Your task to perform on an android device: turn notification dots on Image 0: 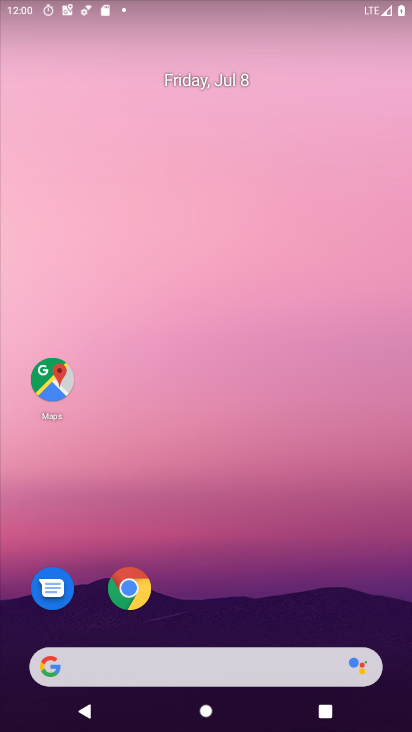
Step 0: drag from (169, 663) to (186, 108)
Your task to perform on an android device: turn notification dots on Image 1: 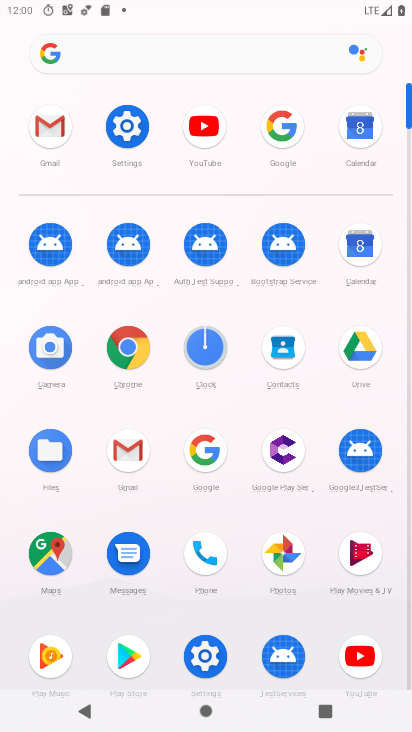
Step 1: click (124, 131)
Your task to perform on an android device: turn notification dots on Image 2: 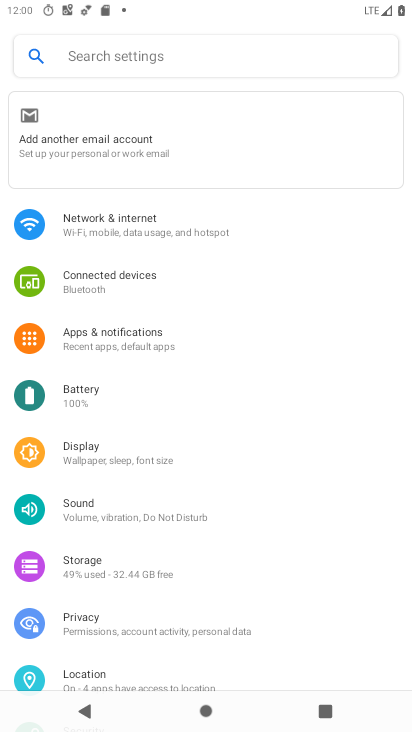
Step 2: click (130, 334)
Your task to perform on an android device: turn notification dots on Image 3: 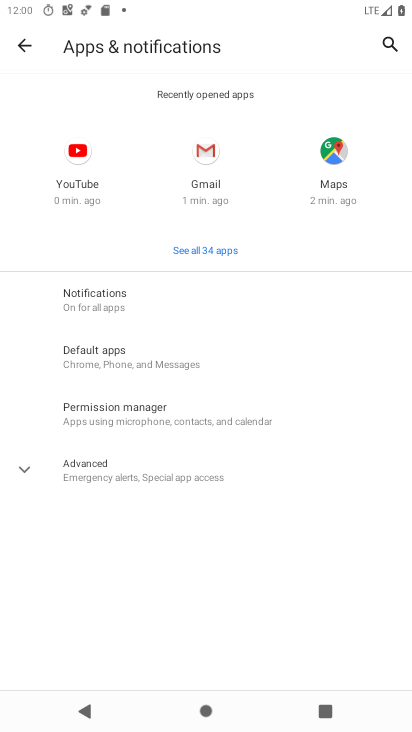
Step 3: click (94, 300)
Your task to perform on an android device: turn notification dots on Image 4: 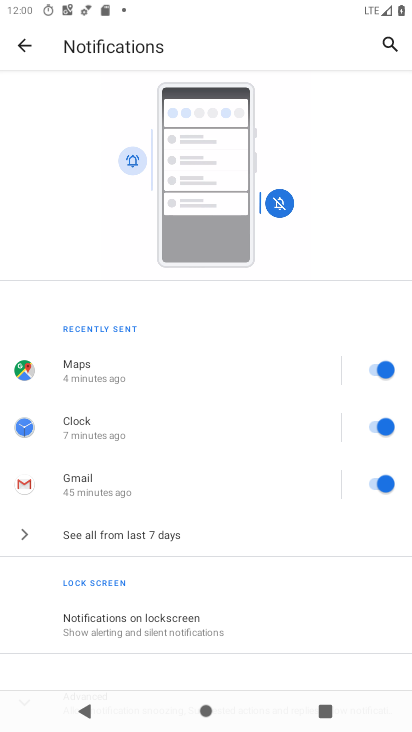
Step 4: drag from (156, 599) to (185, 222)
Your task to perform on an android device: turn notification dots on Image 5: 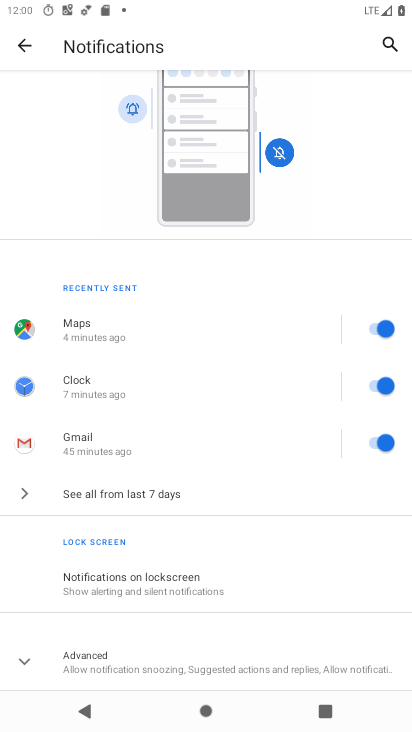
Step 5: click (122, 664)
Your task to perform on an android device: turn notification dots on Image 6: 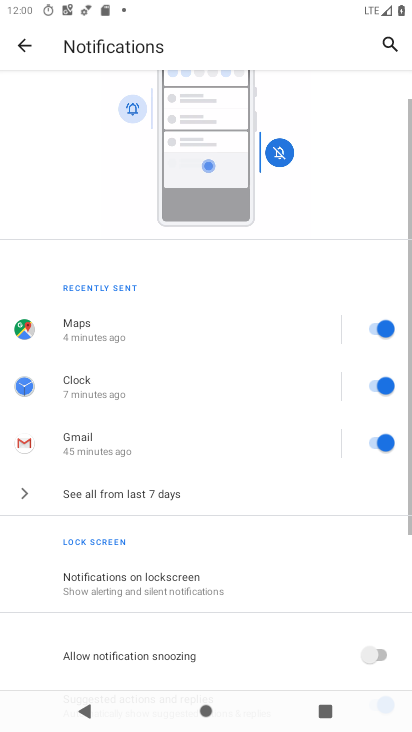
Step 6: drag from (164, 616) to (251, 230)
Your task to perform on an android device: turn notification dots on Image 7: 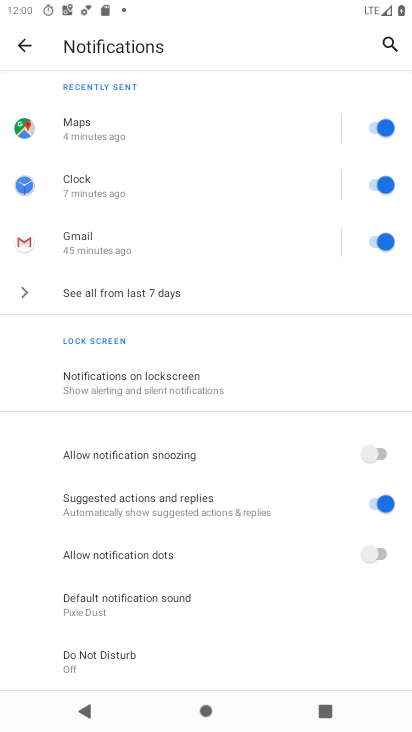
Step 7: click (376, 551)
Your task to perform on an android device: turn notification dots on Image 8: 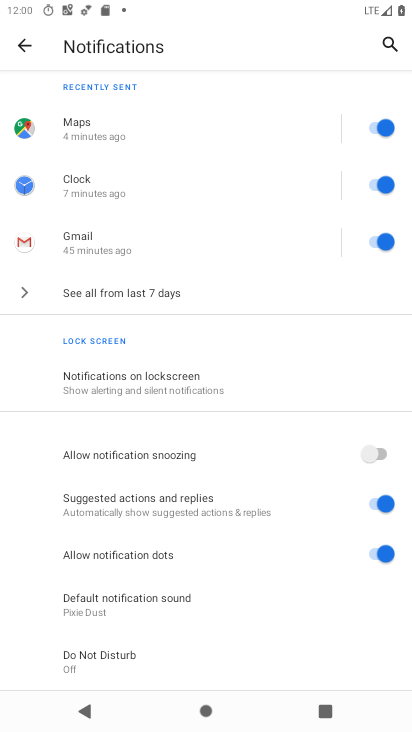
Step 8: task complete